Your task to perform on an android device: Open Youtube and go to "Your channel" Image 0: 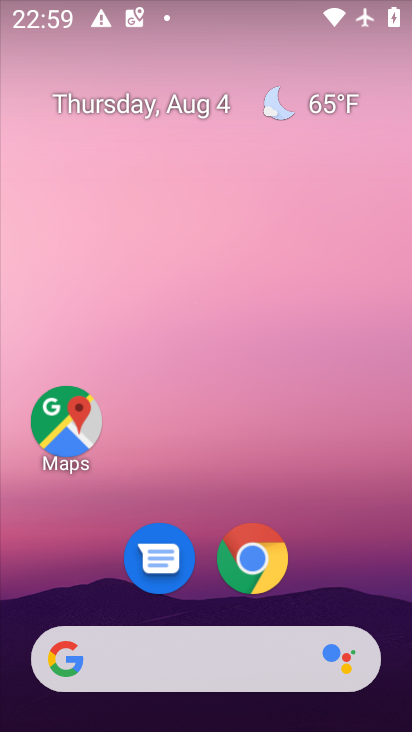
Step 0: click (292, 106)
Your task to perform on an android device: Open Youtube and go to "Your channel" Image 1: 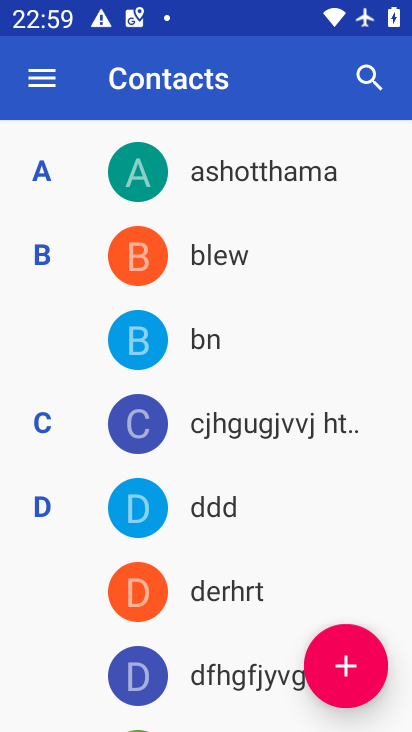
Step 1: press home button
Your task to perform on an android device: Open Youtube and go to "Your channel" Image 2: 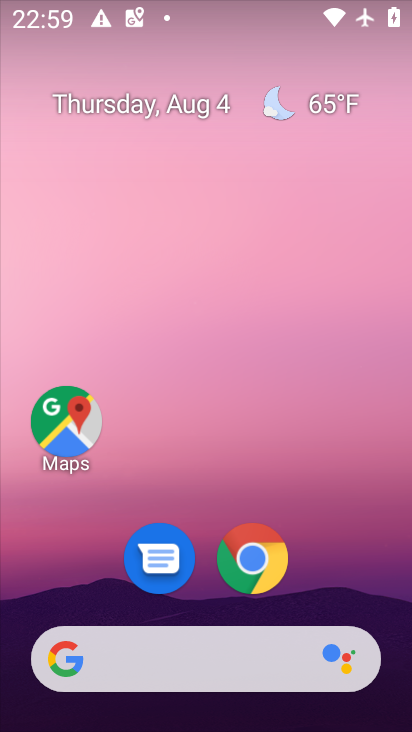
Step 2: drag from (379, 571) to (253, 145)
Your task to perform on an android device: Open Youtube and go to "Your channel" Image 3: 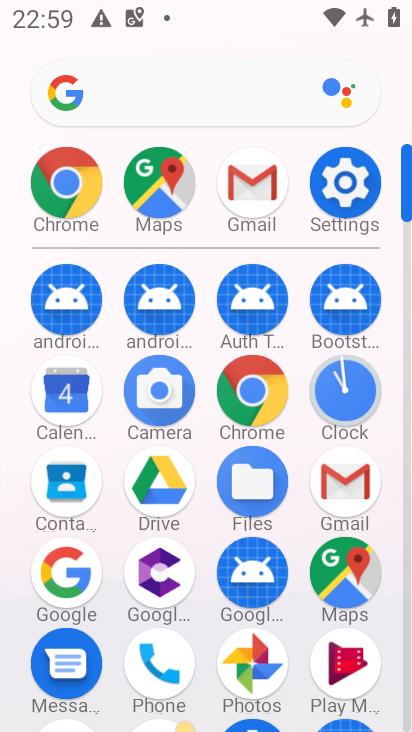
Step 3: drag from (215, 633) to (215, 376)
Your task to perform on an android device: Open Youtube and go to "Your channel" Image 4: 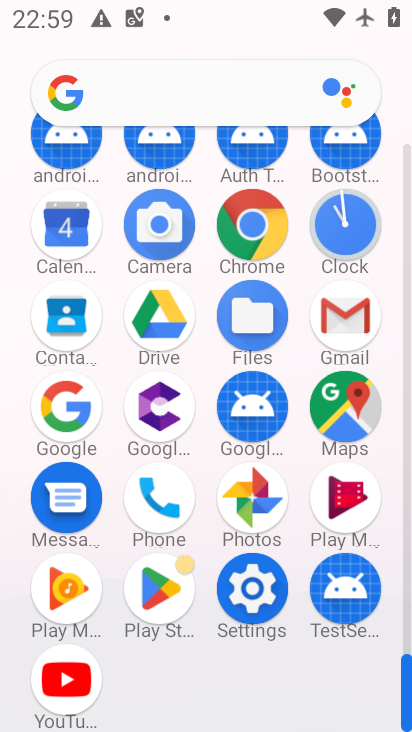
Step 4: click (55, 662)
Your task to perform on an android device: Open Youtube and go to "Your channel" Image 5: 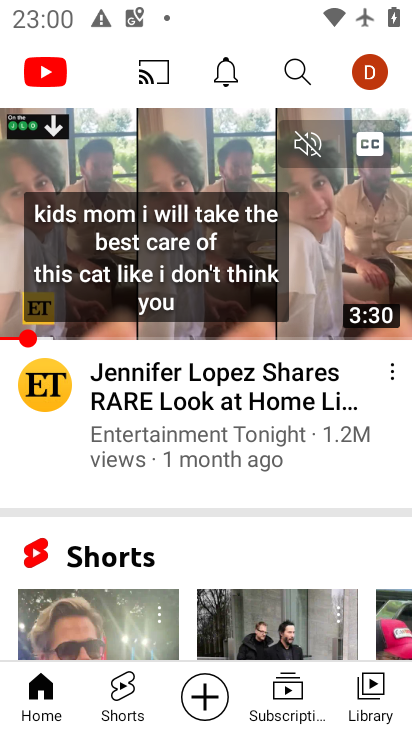
Step 5: click (367, 70)
Your task to perform on an android device: Open Youtube and go to "Your channel" Image 6: 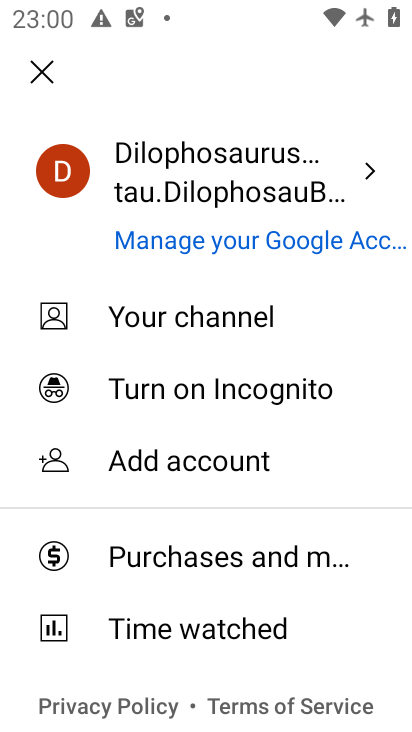
Step 6: click (202, 333)
Your task to perform on an android device: Open Youtube and go to "Your channel" Image 7: 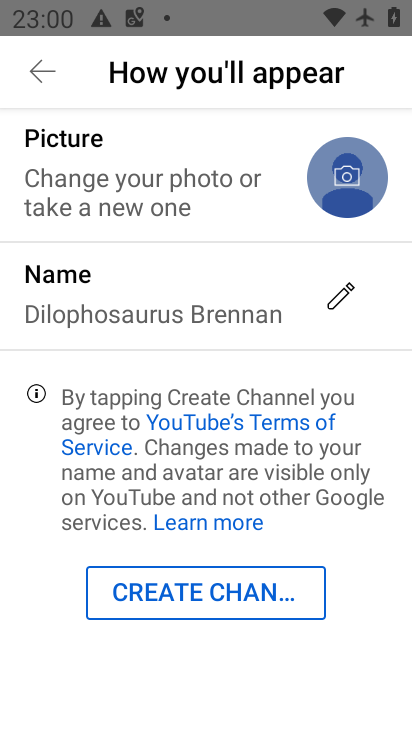
Step 7: task complete